Your task to perform on an android device: toggle location history Image 0: 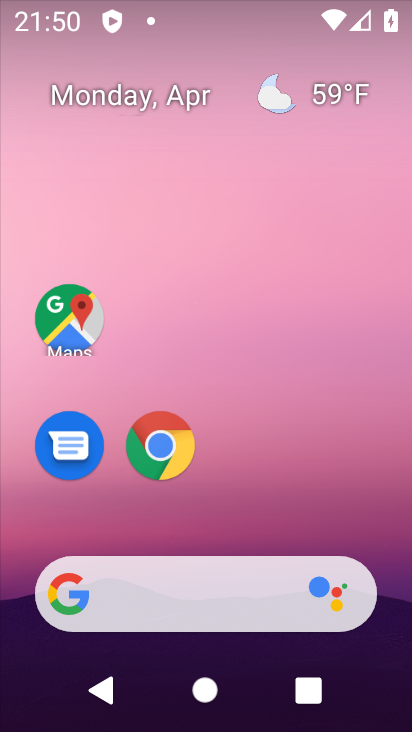
Step 0: drag from (334, 485) to (351, 90)
Your task to perform on an android device: toggle location history Image 1: 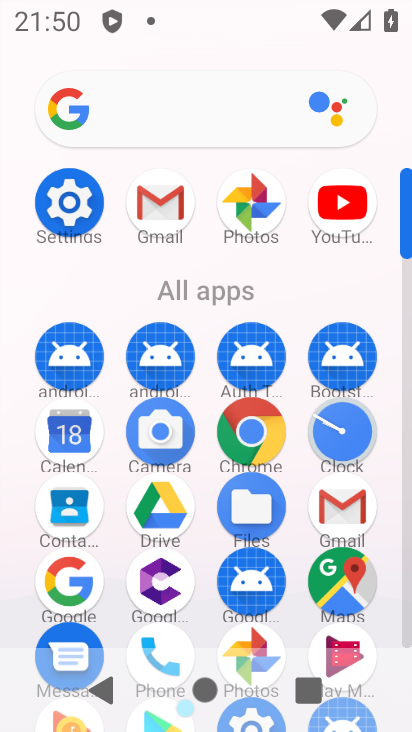
Step 1: click (74, 208)
Your task to perform on an android device: toggle location history Image 2: 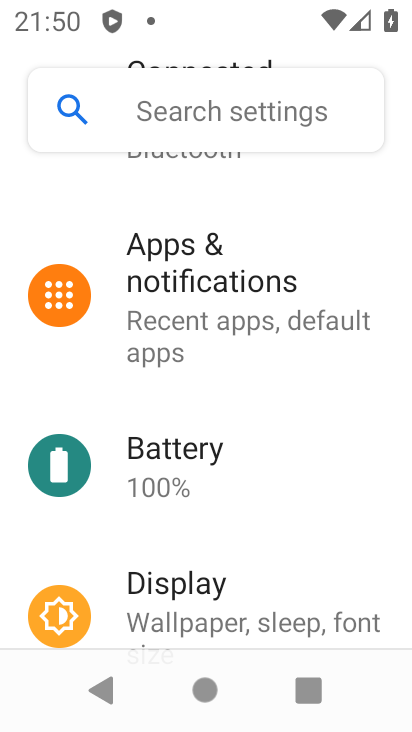
Step 2: drag from (254, 549) to (277, 246)
Your task to perform on an android device: toggle location history Image 3: 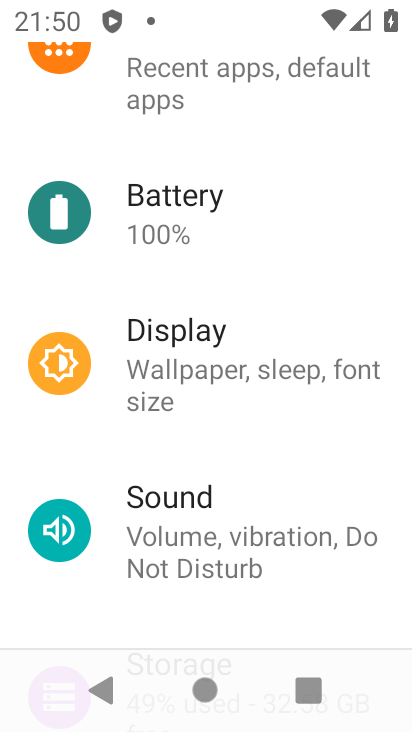
Step 3: drag from (234, 484) to (266, 149)
Your task to perform on an android device: toggle location history Image 4: 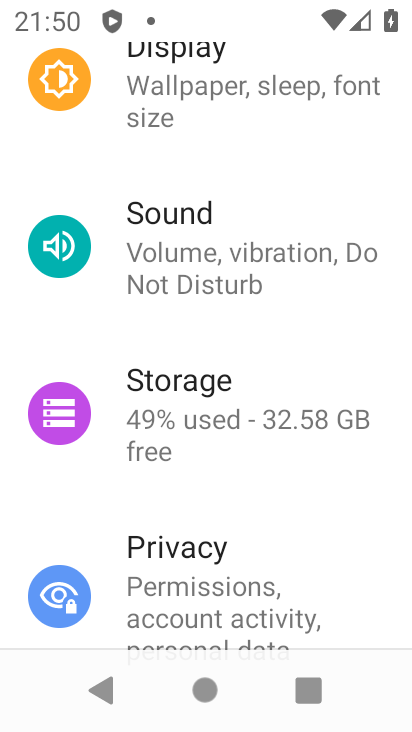
Step 4: drag from (246, 561) to (276, 147)
Your task to perform on an android device: toggle location history Image 5: 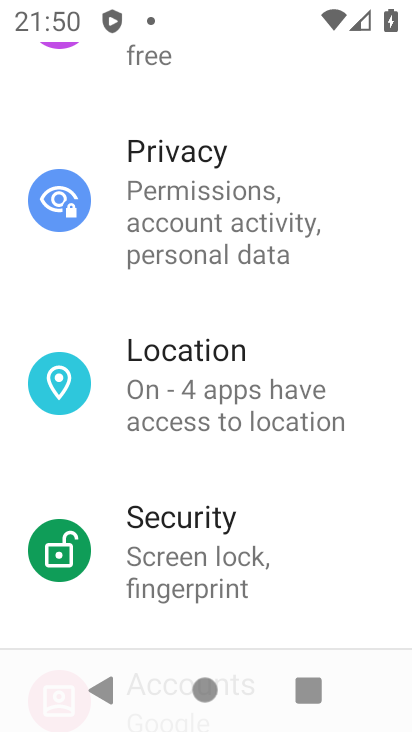
Step 5: click (247, 381)
Your task to perform on an android device: toggle location history Image 6: 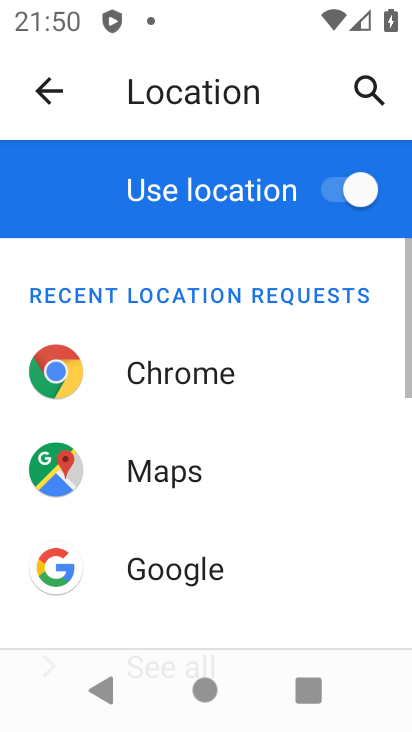
Step 6: drag from (277, 511) to (298, 172)
Your task to perform on an android device: toggle location history Image 7: 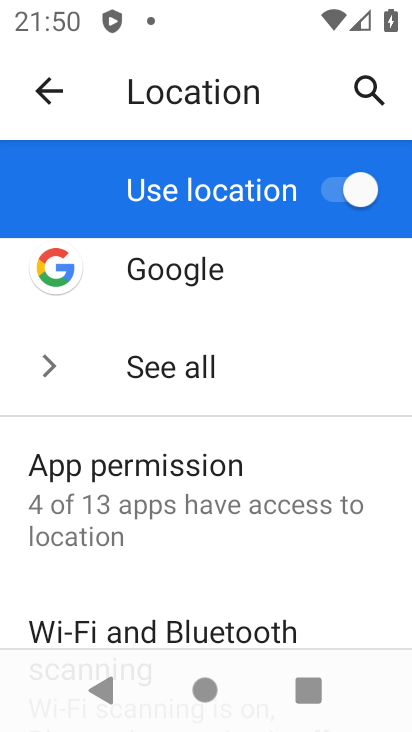
Step 7: drag from (244, 572) to (268, 259)
Your task to perform on an android device: toggle location history Image 8: 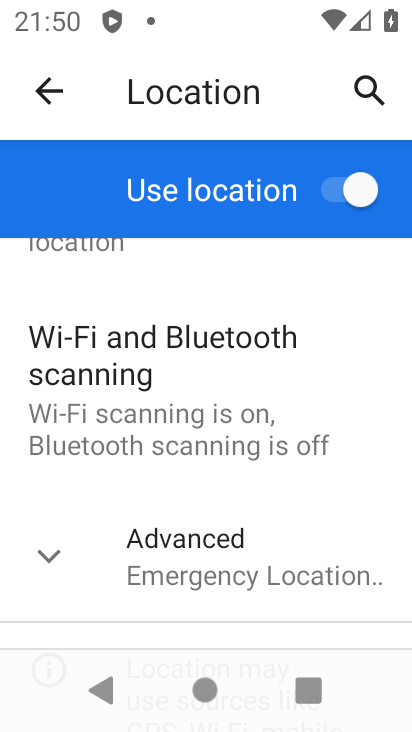
Step 8: click (41, 543)
Your task to perform on an android device: toggle location history Image 9: 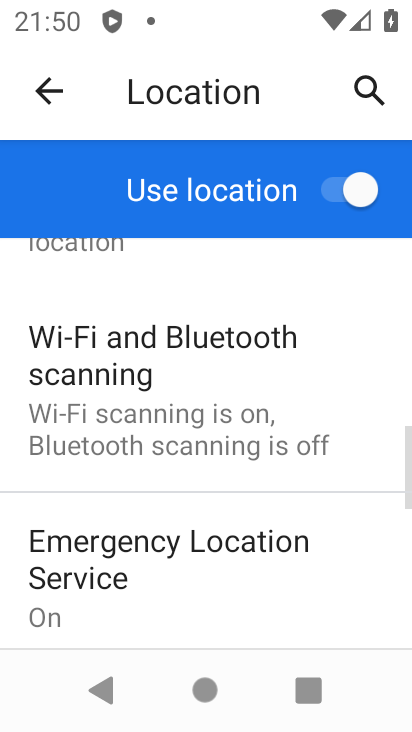
Step 9: drag from (238, 585) to (285, 257)
Your task to perform on an android device: toggle location history Image 10: 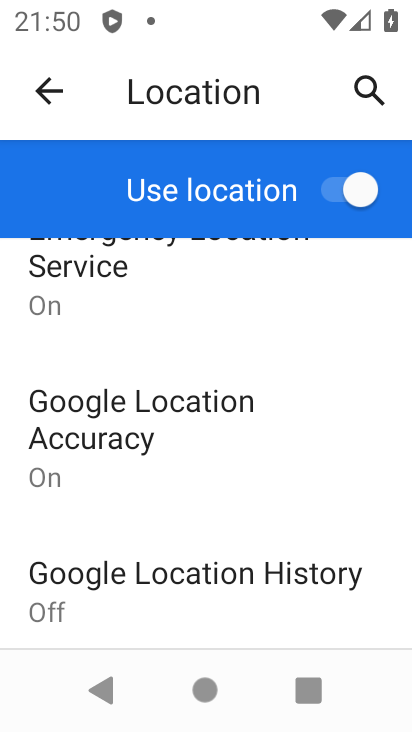
Step 10: click (183, 594)
Your task to perform on an android device: toggle location history Image 11: 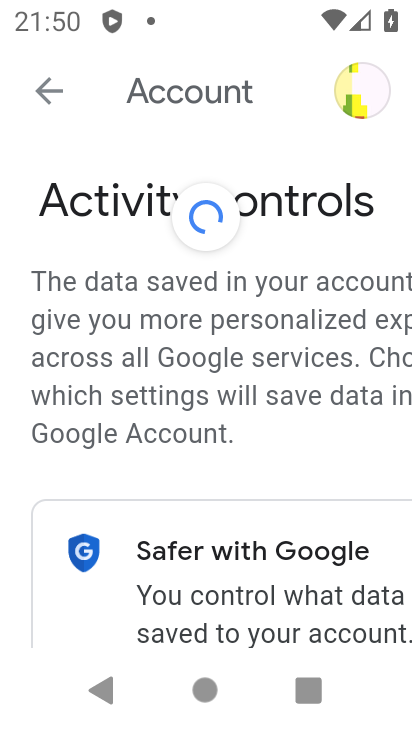
Step 11: drag from (272, 580) to (343, 243)
Your task to perform on an android device: toggle location history Image 12: 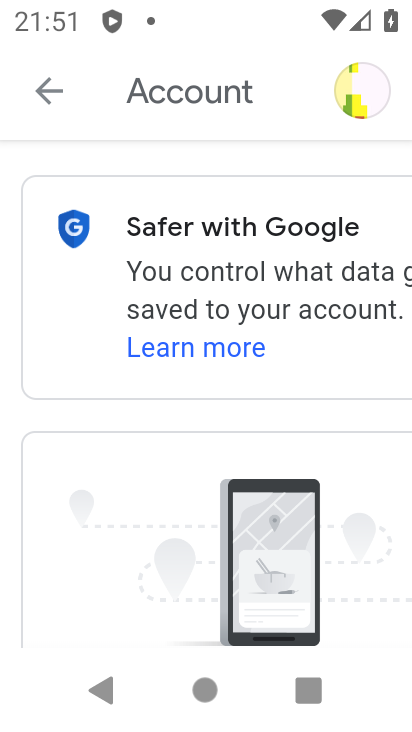
Step 12: drag from (231, 495) to (282, 169)
Your task to perform on an android device: toggle location history Image 13: 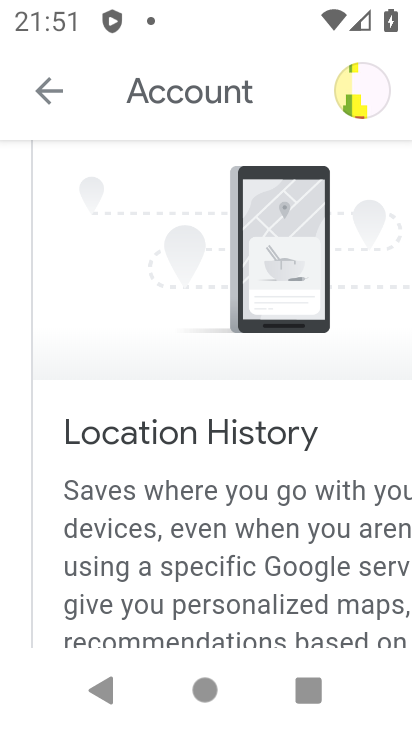
Step 13: drag from (240, 510) to (274, 205)
Your task to perform on an android device: toggle location history Image 14: 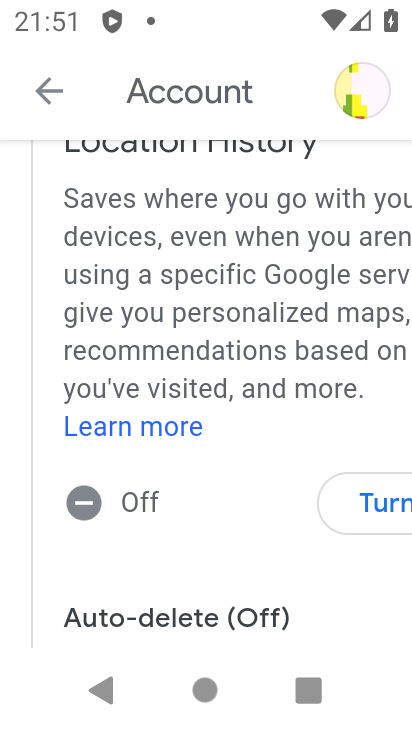
Step 14: click (359, 505)
Your task to perform on an android device: toggle location history Image 15: 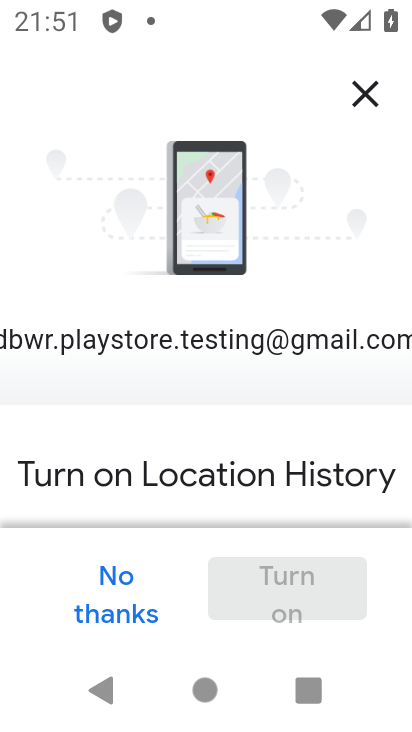
Step 15: drag from (183, 457) to (258, 203)
Your task to perform on an android device: toggle location history Image 16: 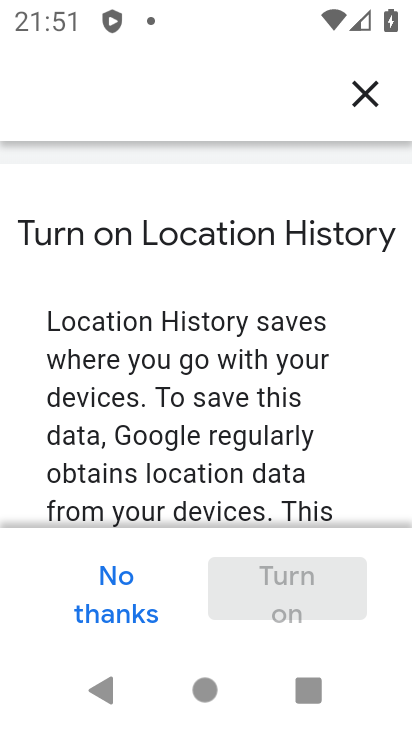
Step 16: drag from (229, 486) to (276, 204)
Your task to perform on an android device: toggle location history Image 17: 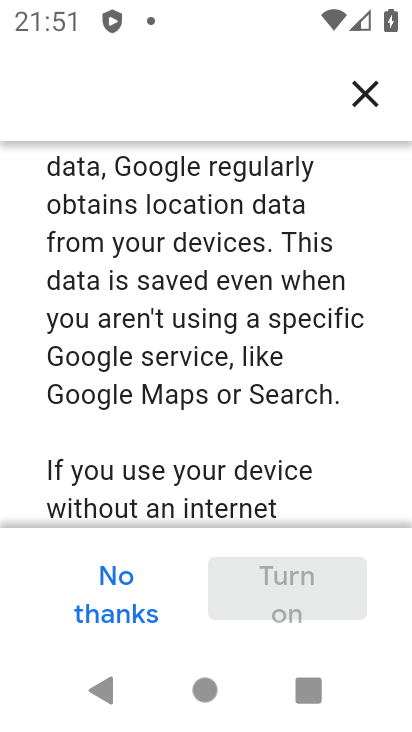
Step 17: drag from (259, 443) to (299, 157)
Your task to perform on an android device: toggle location history Image 18: 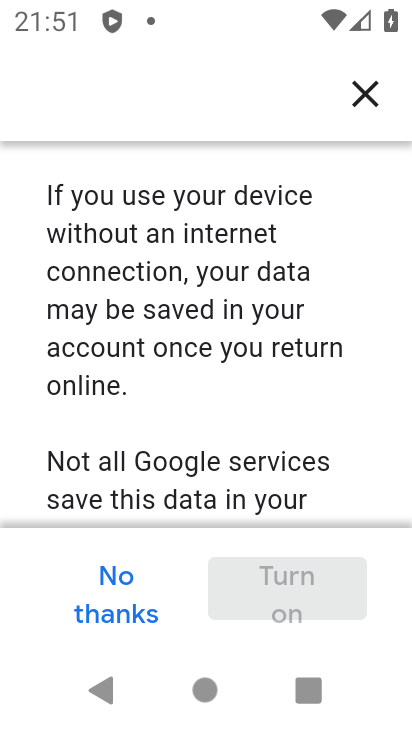
Step 18: drag from (312, 433) to (341, 176)
Your task to perform on an android device: toggle location history Image 19: 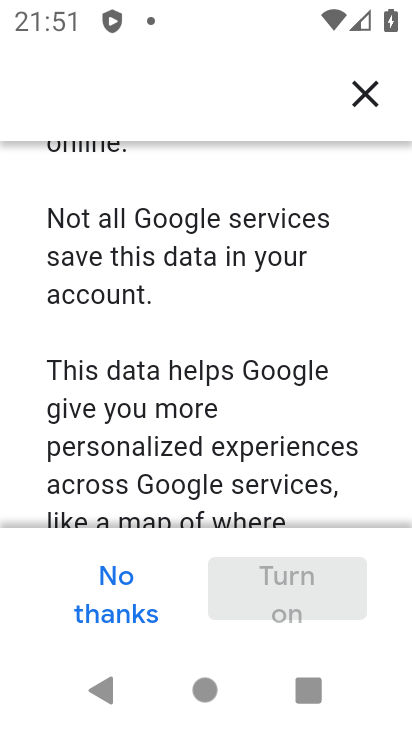
Step 19: drag from (259, 444) to (278, 177)
Your task to perform on an android device: toggle location history Image 20: 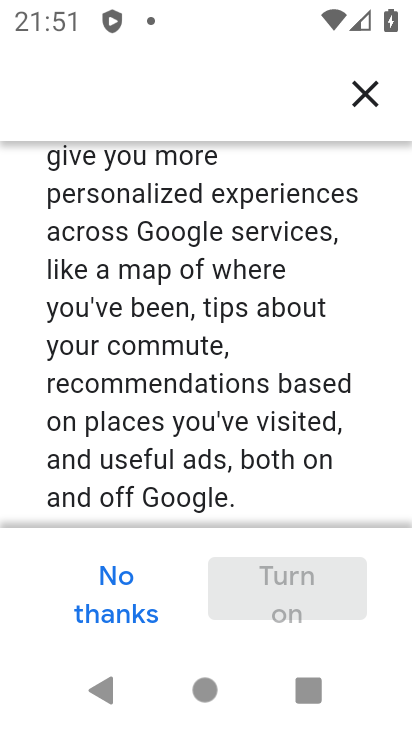
Step 20: drag from (245, 449) to (278, 169)
Your task to perform on an android device: toggle location history Image 21: 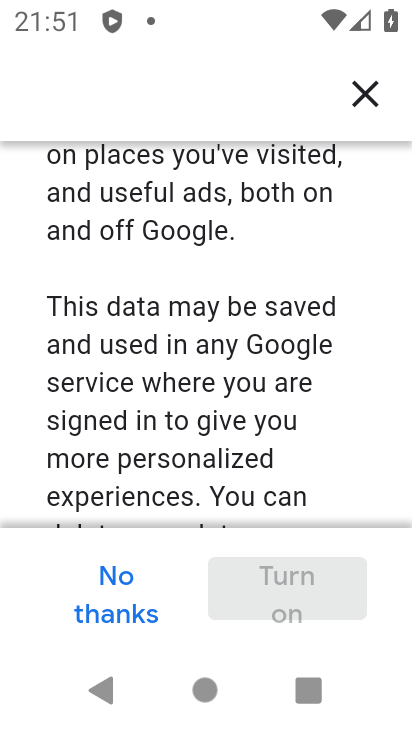
Step 21: drag from (273, 476) to (304, 192)
Your task to perform on an android device: toggle location history Image 22: 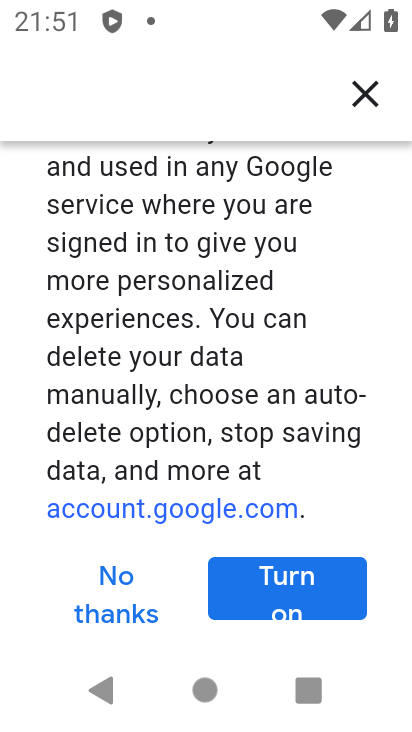
Step 22: click (316, 584)
Your task to perform on an android device: toggle location history Image 23: 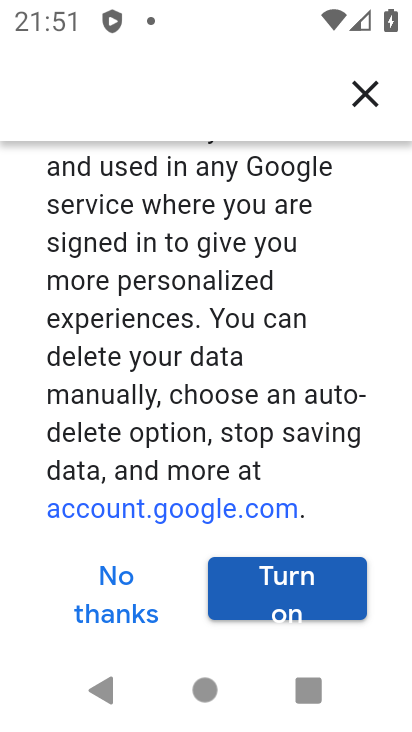
Step 23: click (316, 585)
Your task to perform on an android device: toggle location history Image 24: 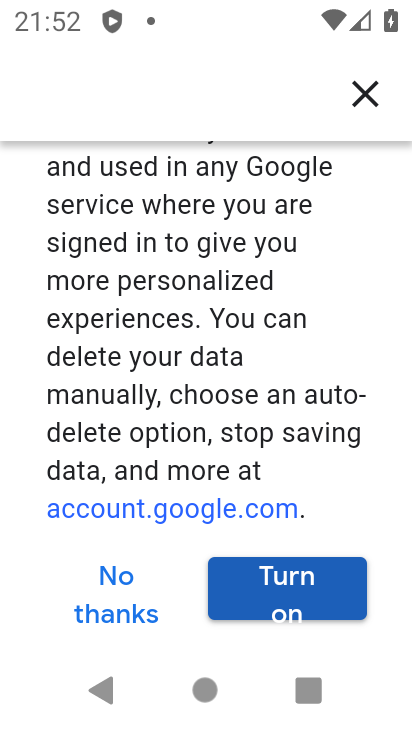
Step 24: click (341, 600)
Your task to perform on an android device: toggle location history Image 25: 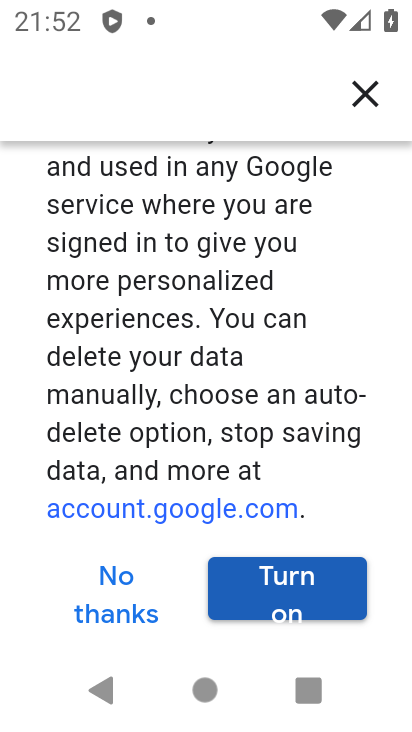
Step 25: task complete